Your task to perform on an android device: Do I have any events today? Image 0: 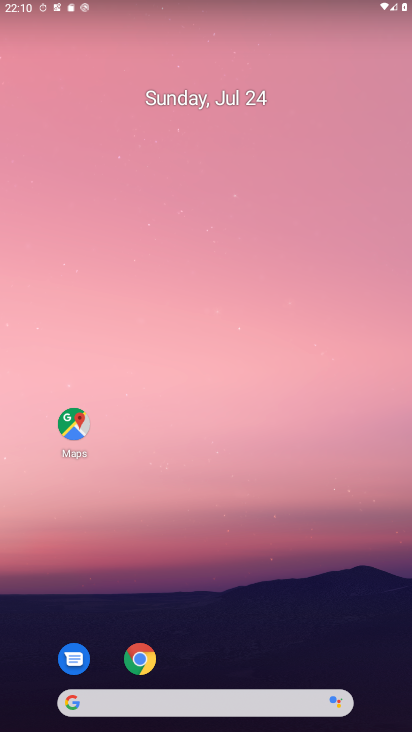
Step 0: drag from (215, 715) to (199, 204)
Your task to perform on an android device: Do I have any events today? Image 1: 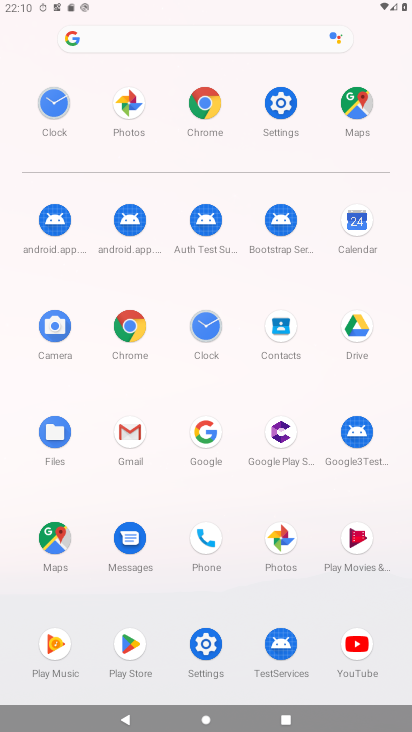
Step 1: click (352, 228)
Your task to perform on an android device: Do I have any events today? Image 2: 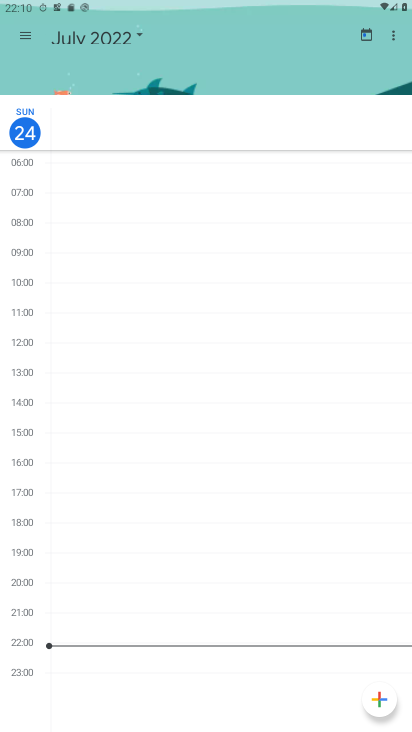
Step 2: click (27, 31)
Your task to perform on an android device: Do I have any events today? Image 3: 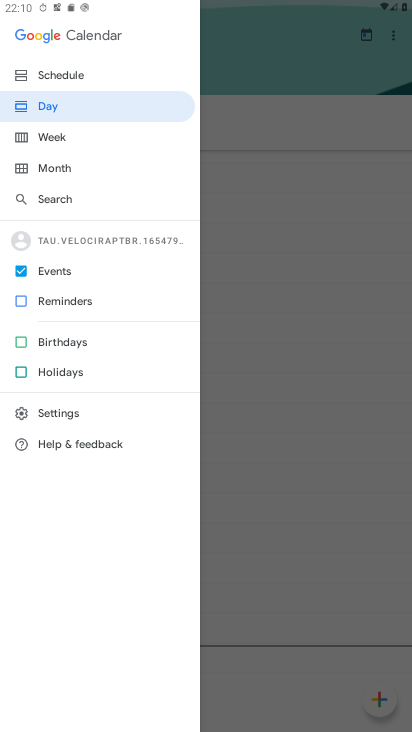
Step 3: click (246, 63)
Your task to perform on an android device: Do I have any events today? Image 4: 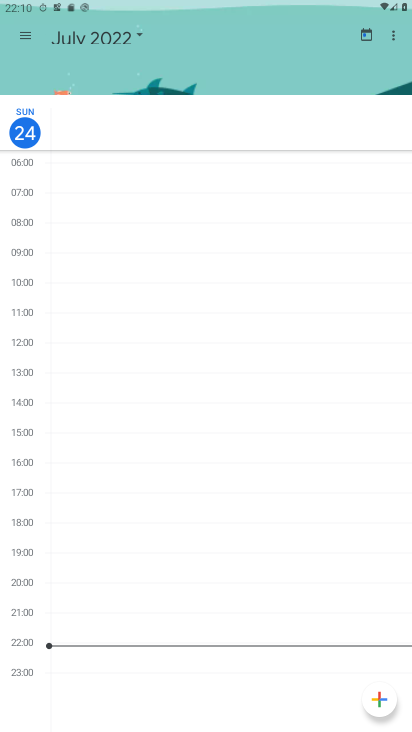
Step 4: task complete